Your task to perform on an android device: Empty the shopping cart on target.com. Search for bose soundsport free on target.com, select the first entry, and add it to the cart. Image 0: 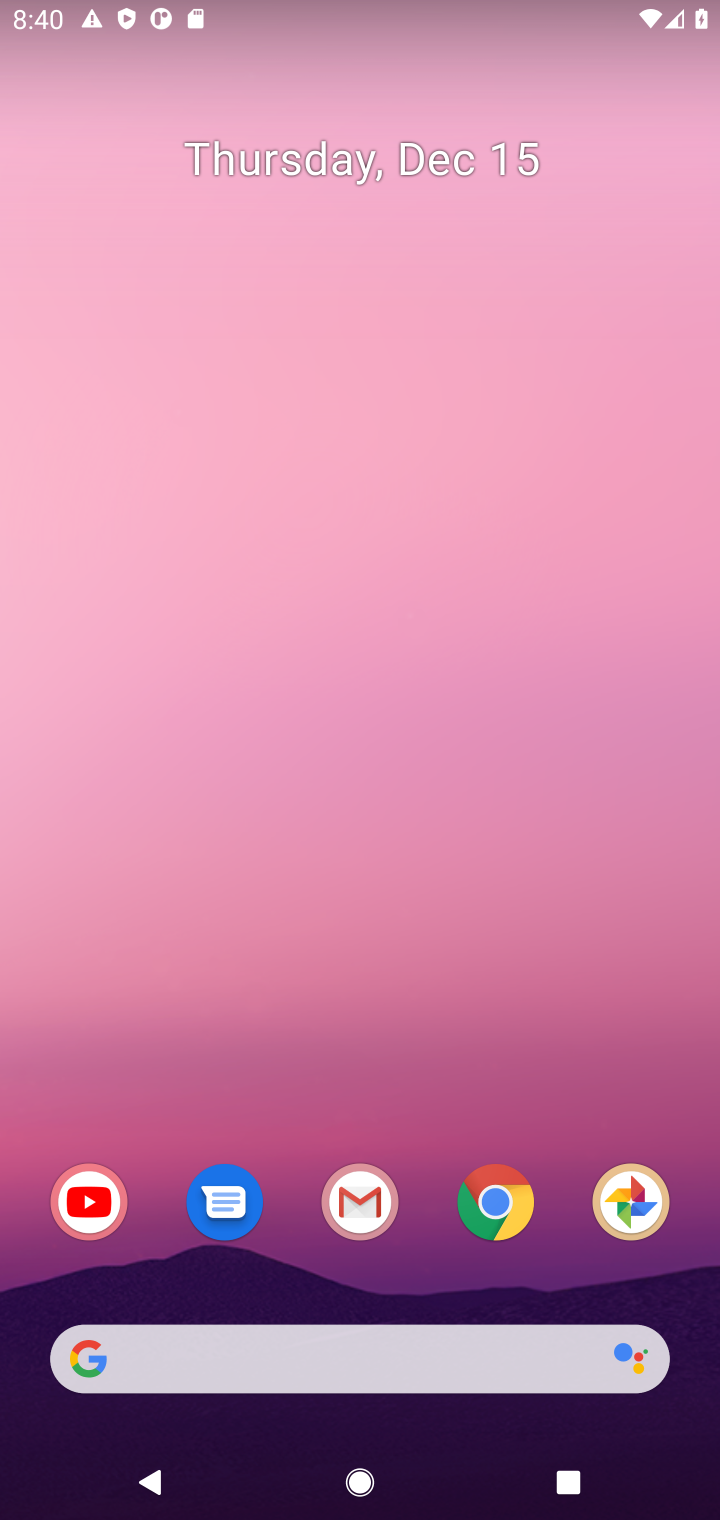
Step 0: click (504, 1199)
Your task to perform on an android device: Empty the shopping cart on target.com. Search for bose soundsport free on target.com, select the first entry, and add it to the cart. Image 1: 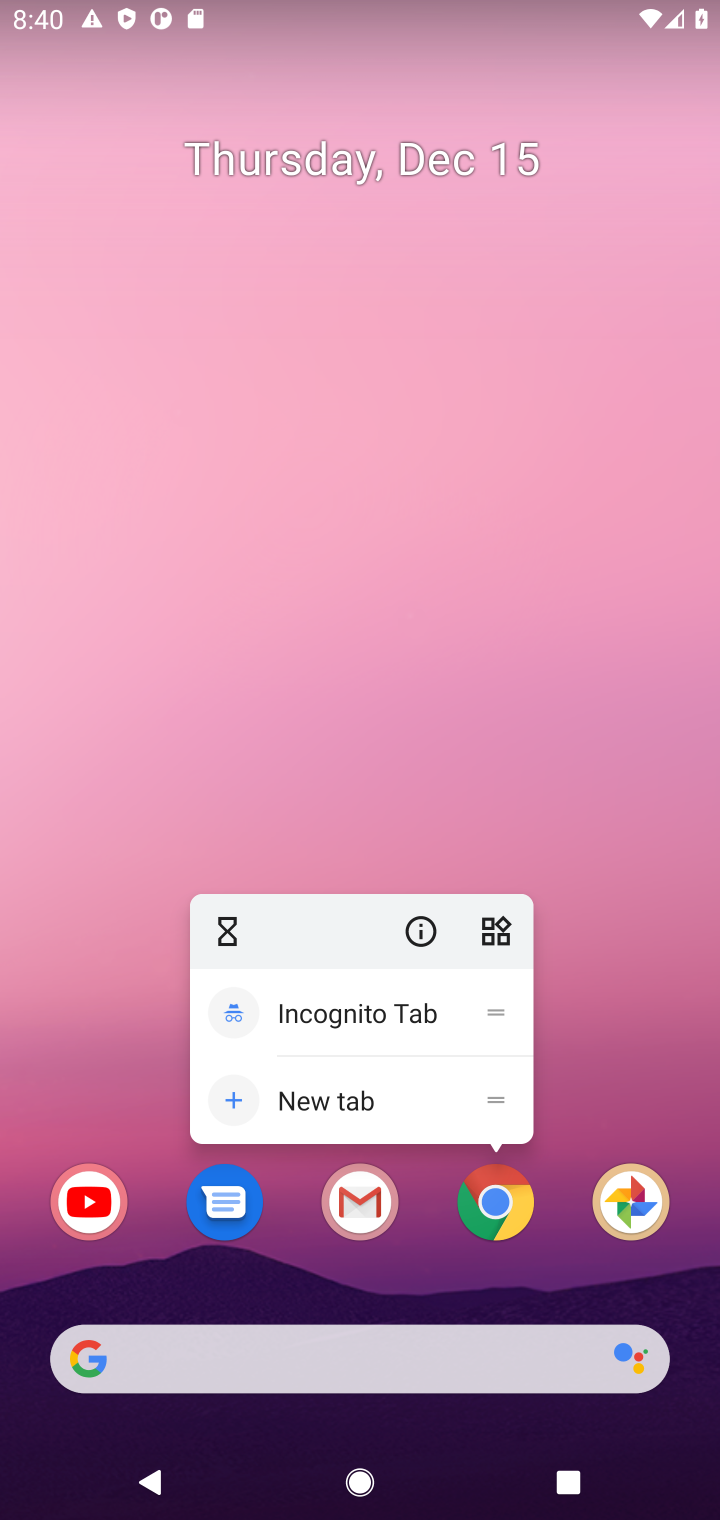
Step 1: click (502, 1206)
Your task to perform on an android device: Empty the shopping cart on target.com. Search for bose soundsport free on target.com, select the first entry, and add it to the cart. Image 2: 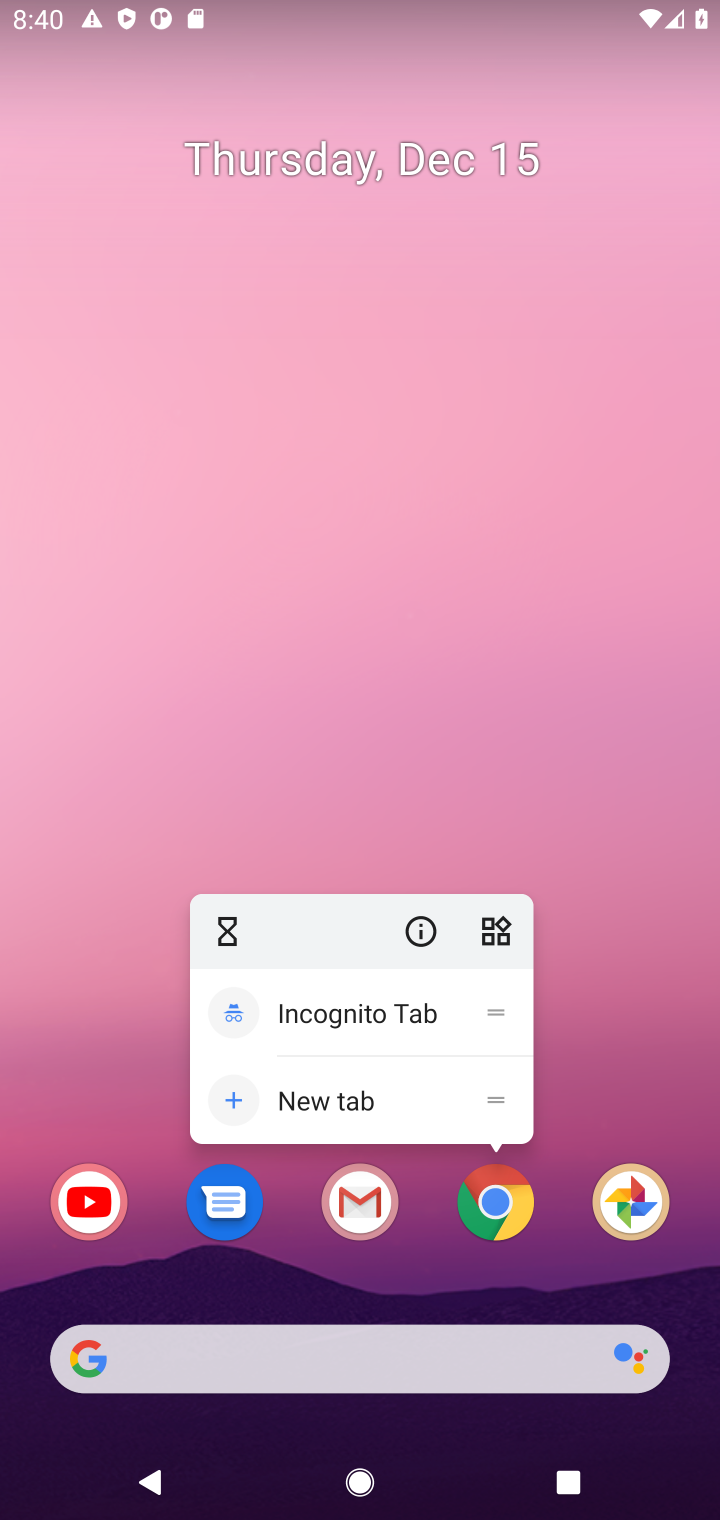
Step 2: click (501, 1196)
Your task to perform on an android device: Empty the shopping cart on target.com. Search for bose soundsport free on target.com, select the first entry, and add it to the cart. Image 3: 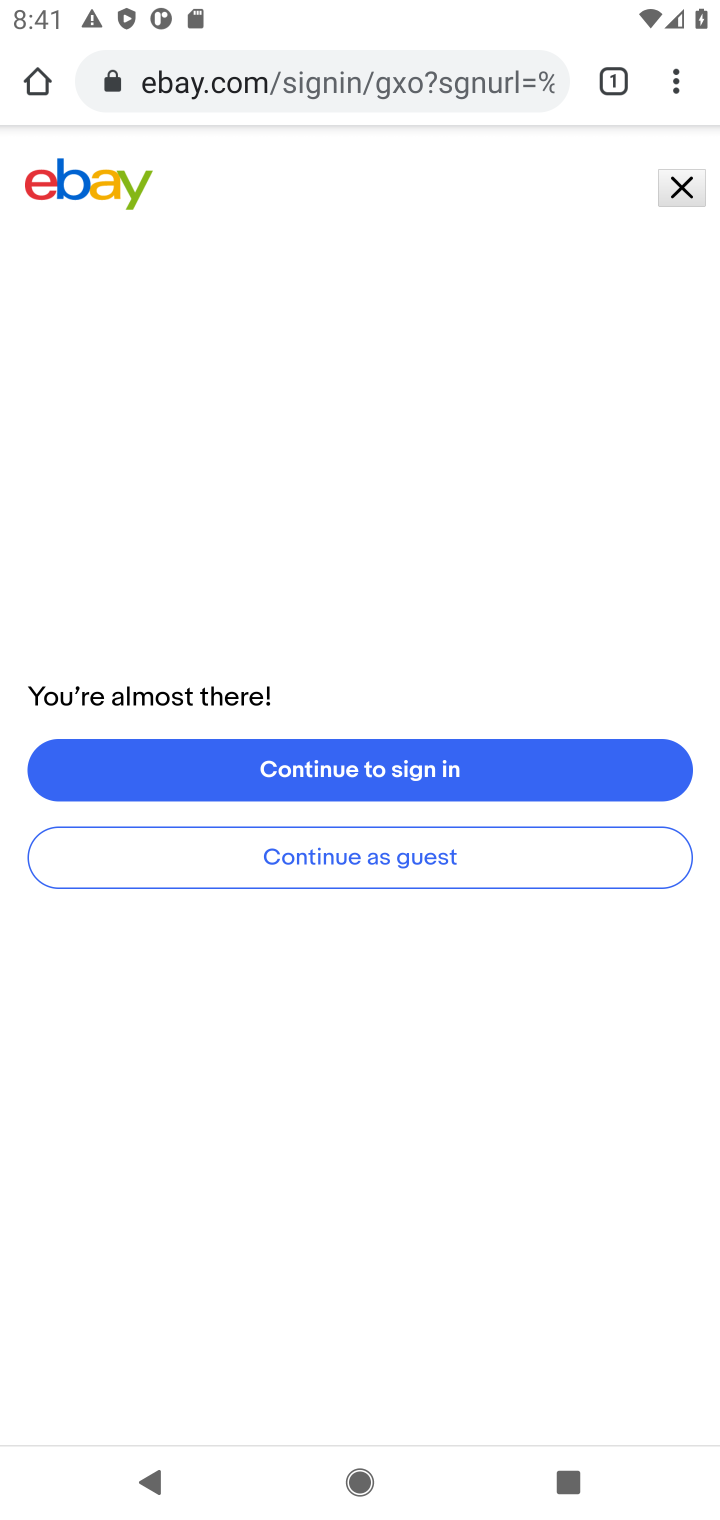
Step 3: click (310, 93)
Your task to perform on an android device: Empty the shopping cart on target.com. Search for bose soundsport free on target.com, select the first entry, and add it to the cart. Image 4: 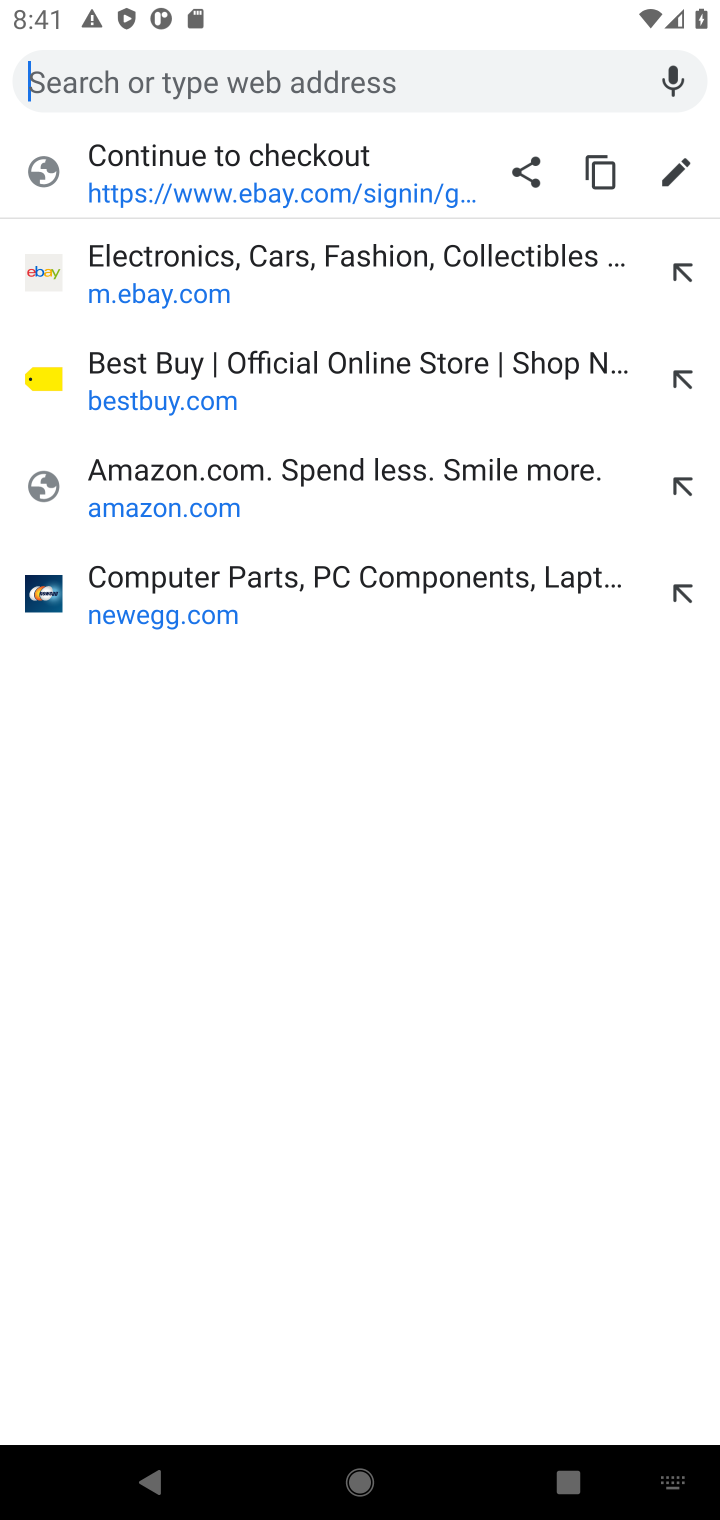
Step 4: type "target.com"
Your task to perform on an android device: Empty the shopping cart on target.com. Search for bose soundsport free on target.com, select the first entry, and add it to the cart. Image 5: 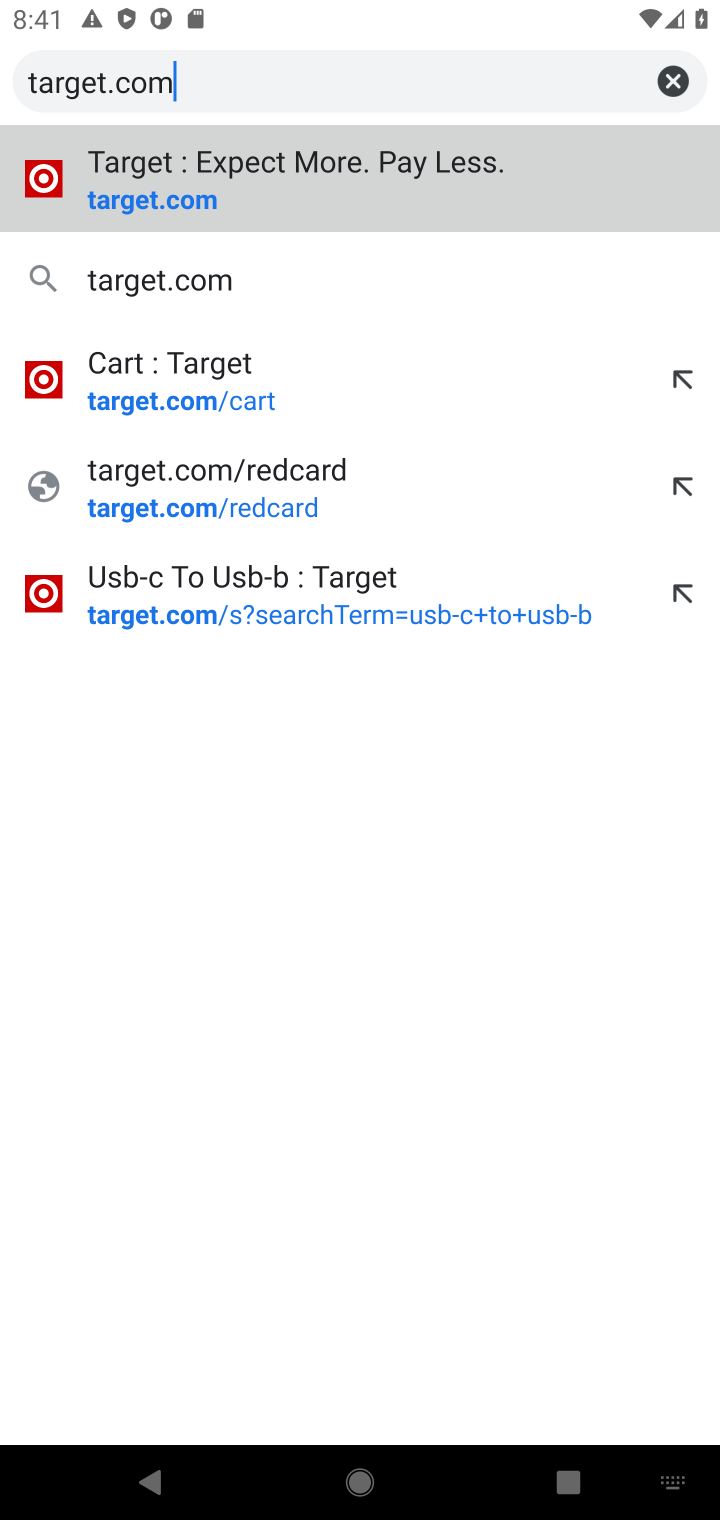
Step 5: click (117, 199)
Your task to perform on an android device: Empty the shopping cart on target.com. Search for bose soundsport free on target.com, select the first entry, and add it to the cart. Image 6: 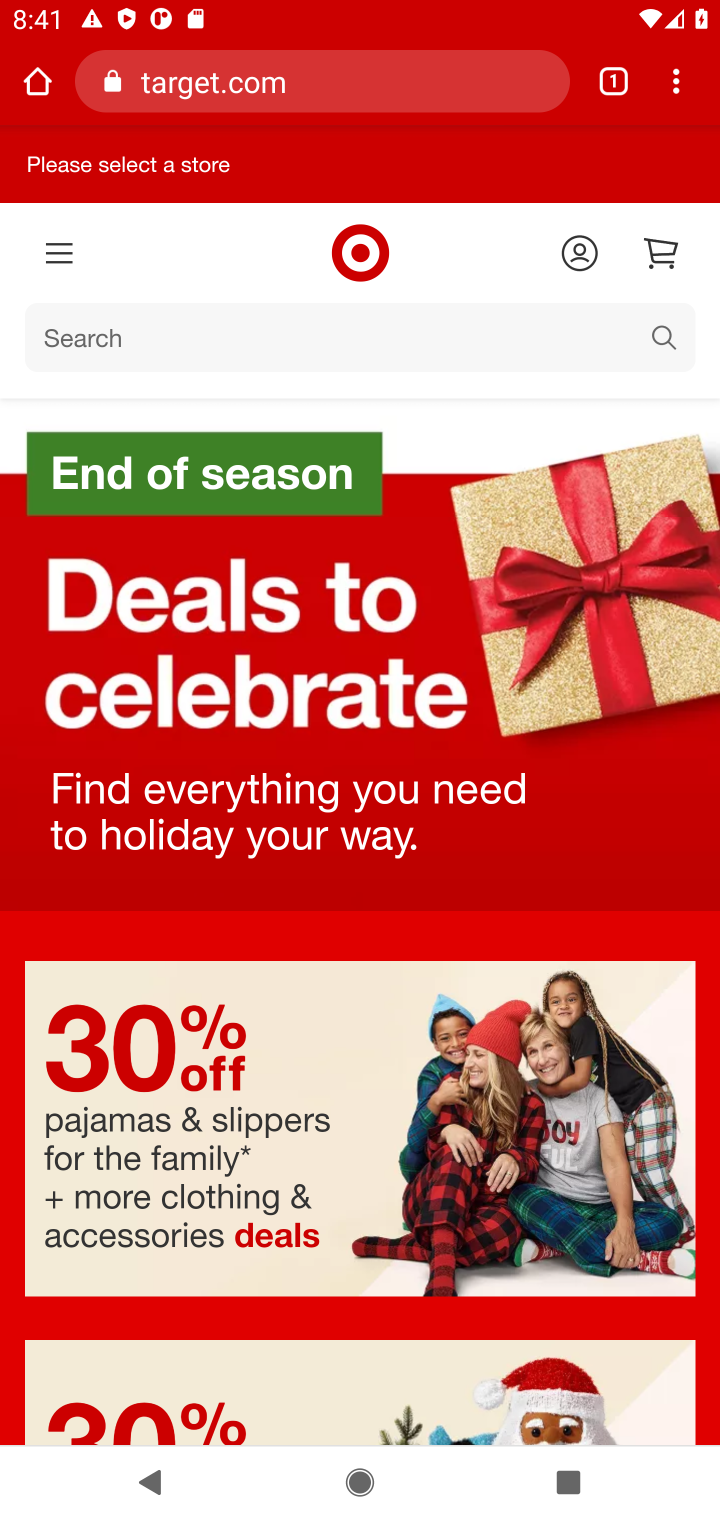
Step 6: click (657, 248)
Your task to perform on an android device: Empty the shopping cart on target.com. Search for bose soundsport free on target.com, select the first entry, and add it to the cart. Image 7: 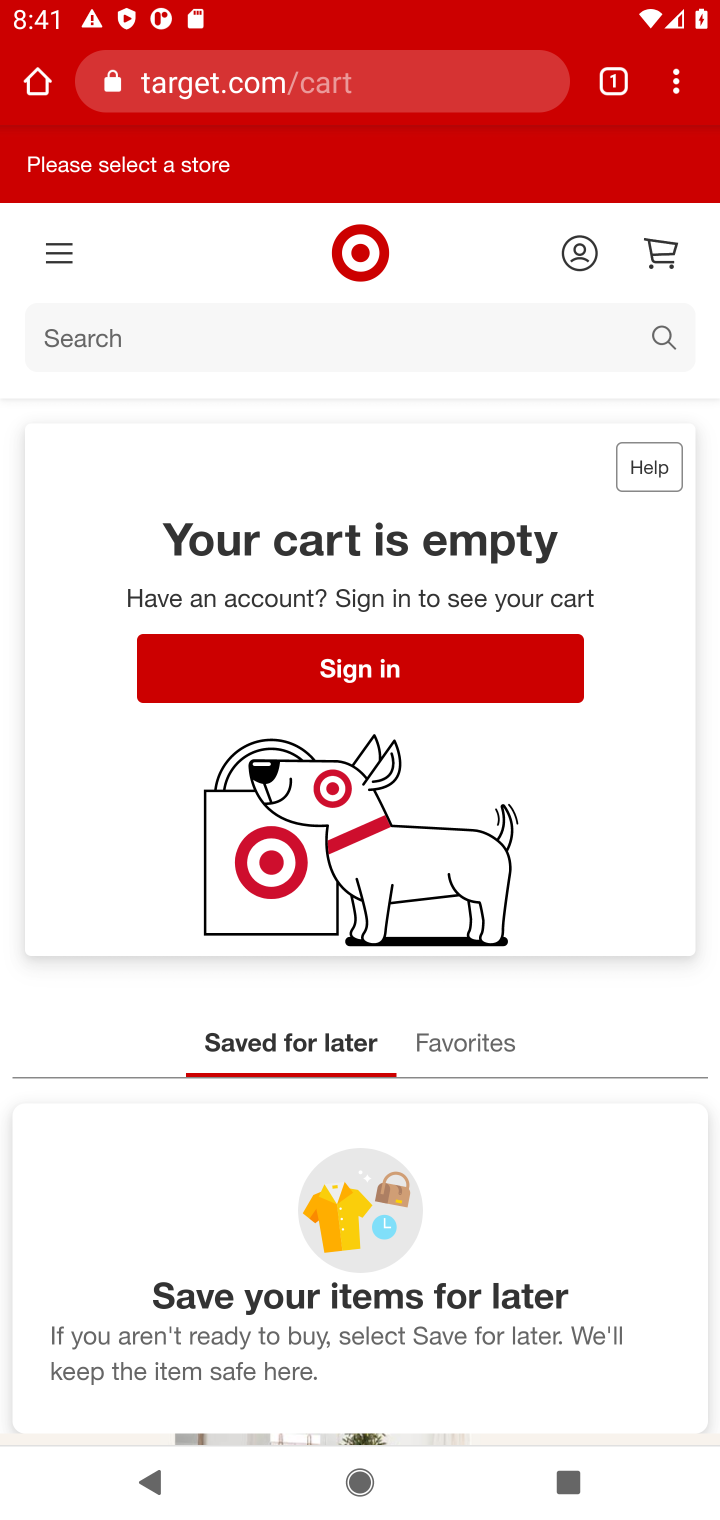
Step 7: click (68, 341)
Your task to perform on an android device: Empty the shopping cart on target.com. Search for bose soundsport free on target.com, select the first entry, and add it to the cart. Image 8: 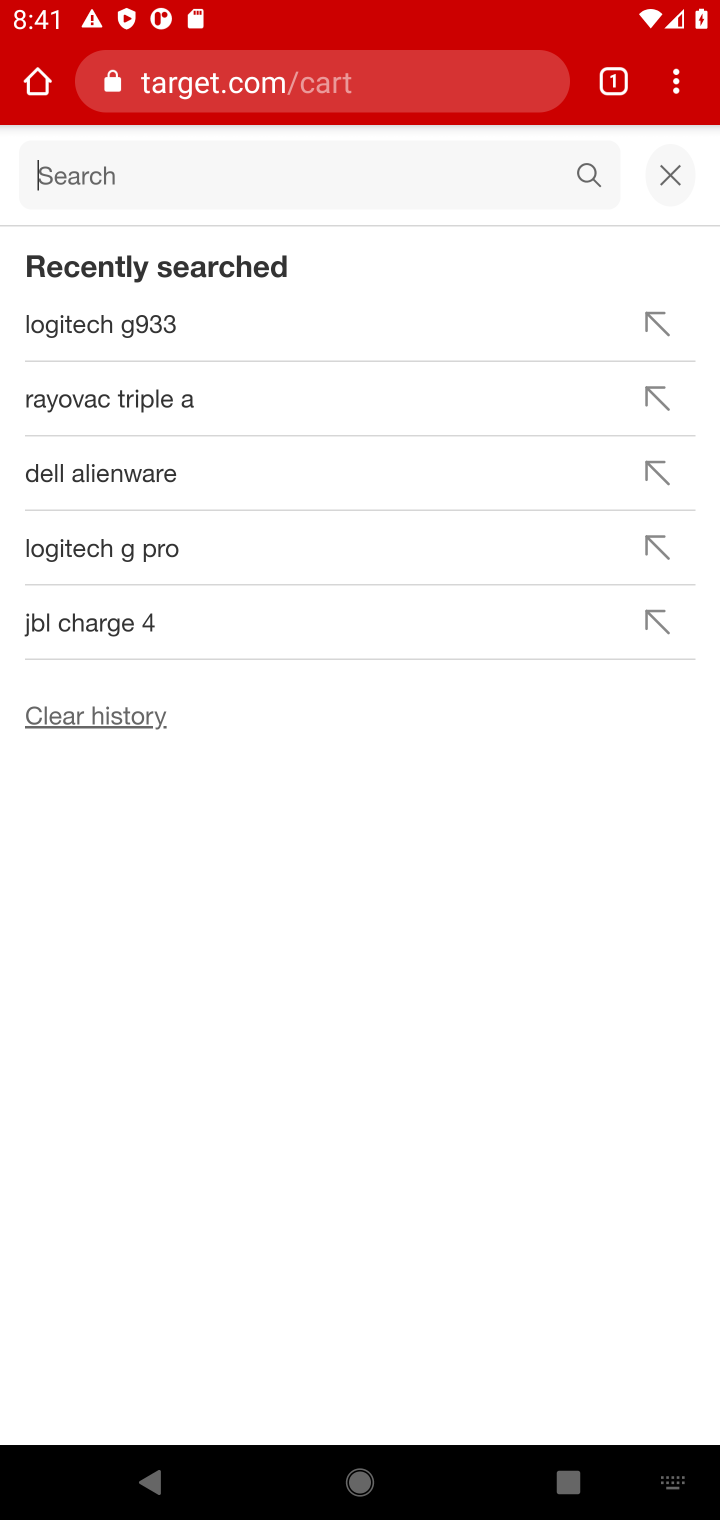
Step 8: type "bose soundsport free"
Your task to perform on an android device: Empty the shopping cart on target.com. Search for bose soundsport free on target.com, select the first entry, and add it to the cart. Image 9: 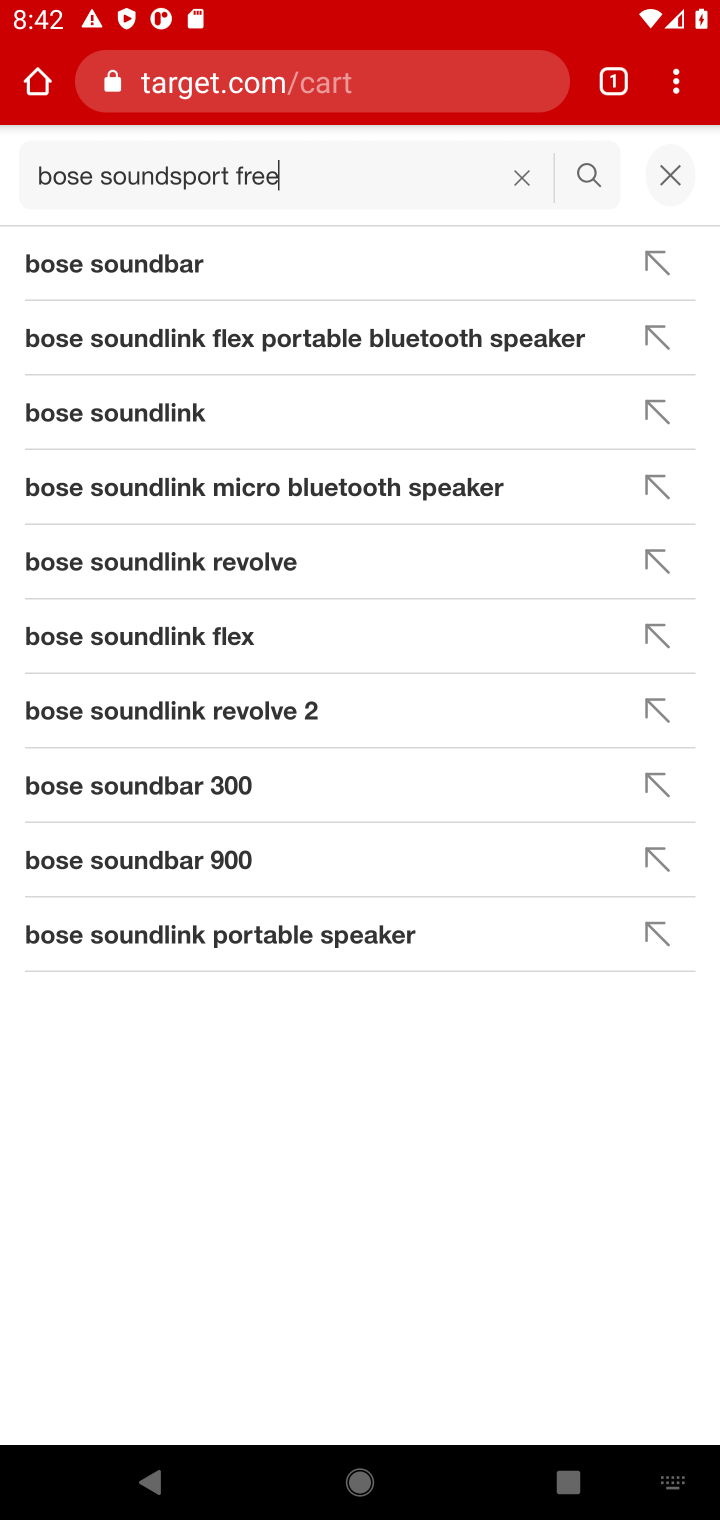
Step 9: click (577, 170)
Your task to perform on an android device: Empty the shopping cart on target.com. Search for bose soundsport free on target.com, select the first entry, and add it to the cart. Image 10: 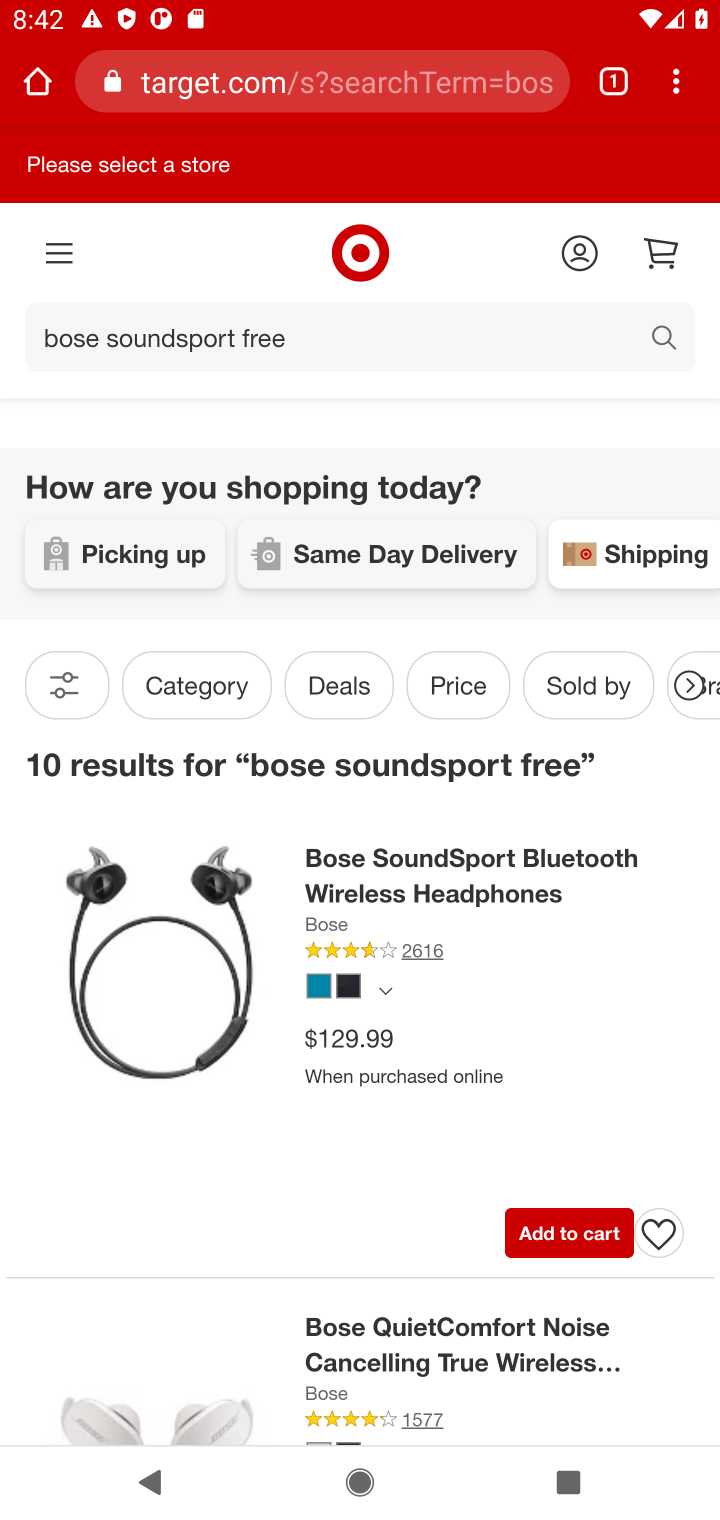
Step 10: task complete